Your task to perform on an android device: toggle sleep mode Image 0: 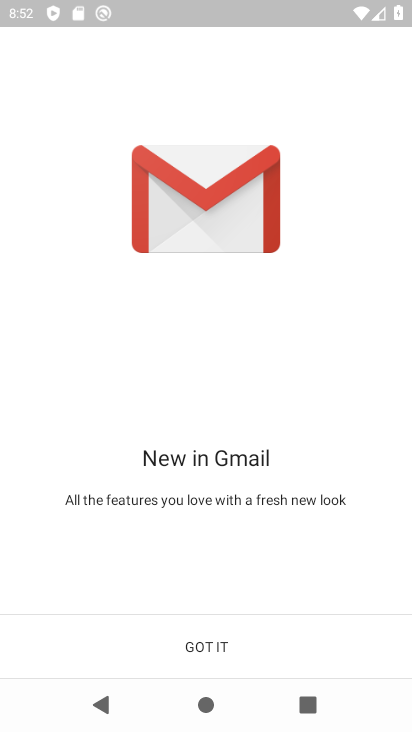
Step 0: press home button
Your task to perform on an android device: toggle sleep mode Image 1: 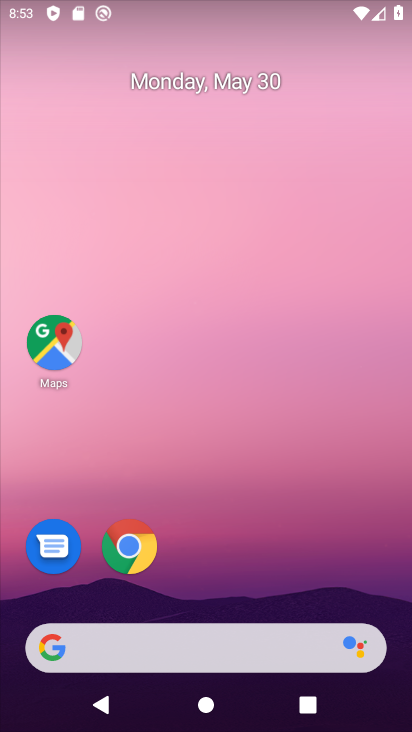
Step 1: drag from (239, 586) to (214, 26)
Your task to perform on an android device: toggle sleep mode Image 2: 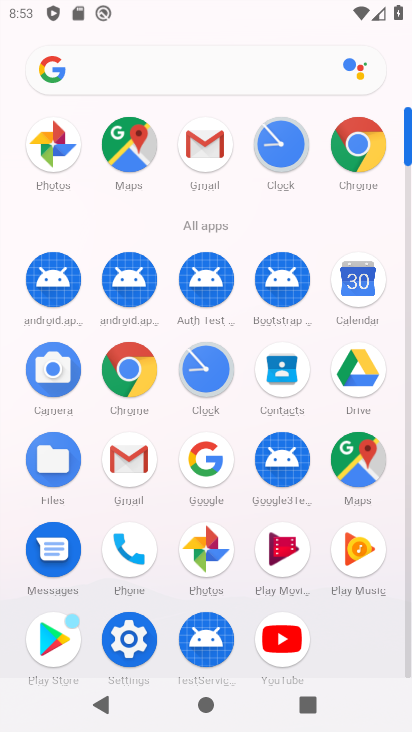
Step 2: click (122, 638)
Your task to perform on an android device: toggle sleep mode Image 3: 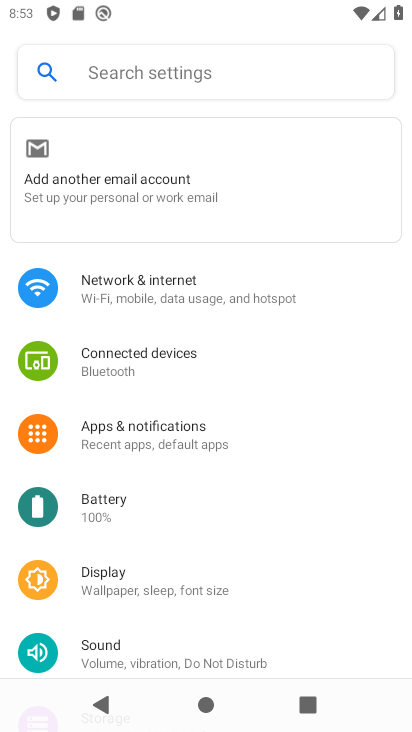
Step 3: click (233, 586)
Your task to perform on an android device: toggle sleep mode Image 4: 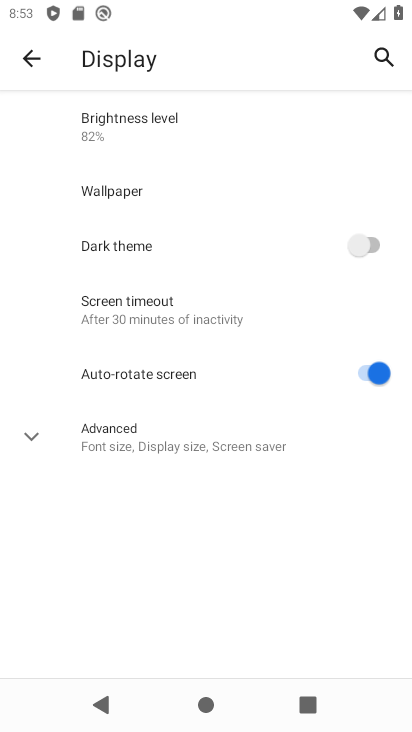
Step 4: click (169, 425)
Your task to perform on an android device: toggle sleep mode Image 5: 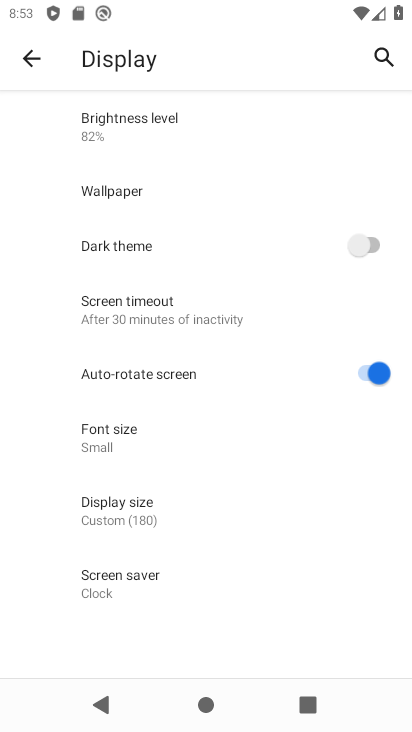
Step 5: click (38, 60)
Your task to perform on an android device: toggle sleep mode Image 6: 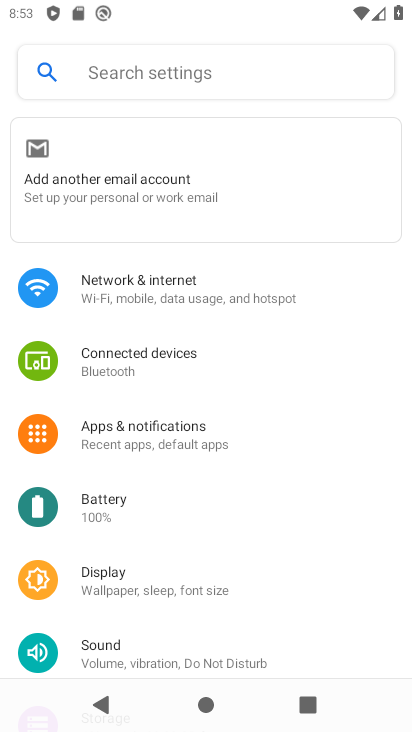
Step 6: task complete